Your task to perform on an android device: turn smart compose on in the gmail app Image 0: 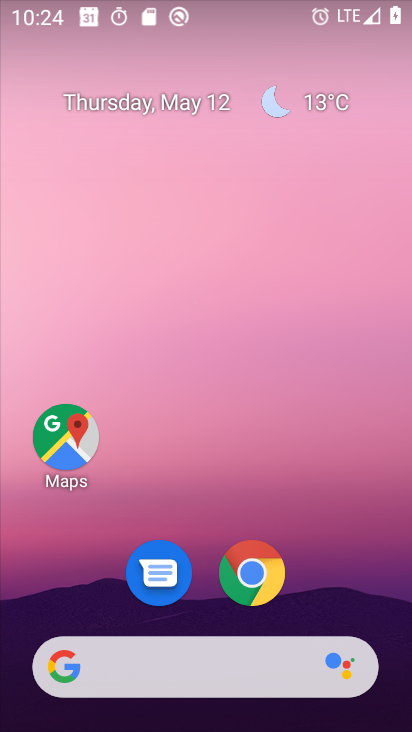
Step 0: drag from (394, 661) to (362, 316)
Your task to perform on an android device: turn smart compose on in the gmail app Image 1: 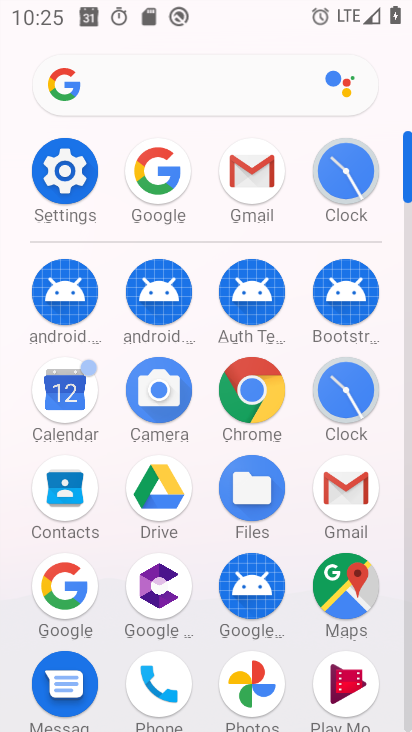
Step 1: click (349, 505)
Your task to perform on an android device: turn smart compose on in the gmail app Image 2: 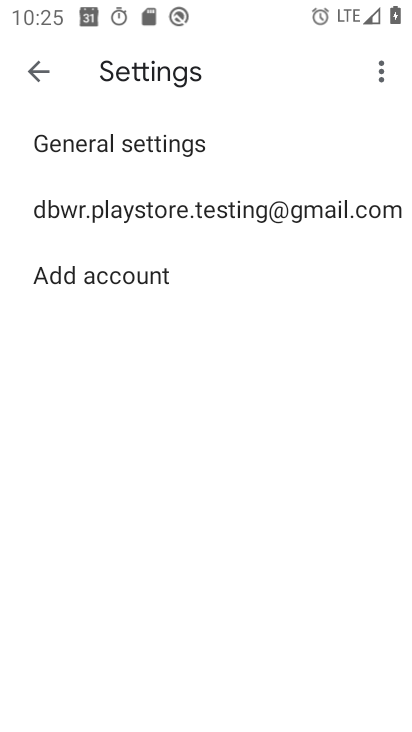
Step 2: click (70, 212)
Your task to perform on an android device: turn smart compose on in the gmail app Image 3: 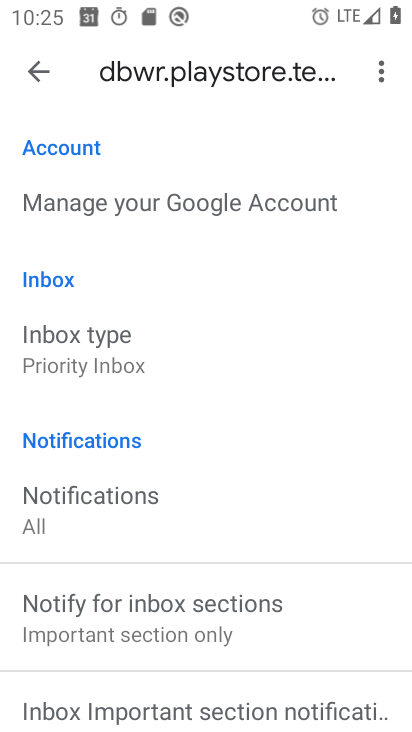
Step 3: task complete